Your task to perform on an android device: Go to Maps Image 0: 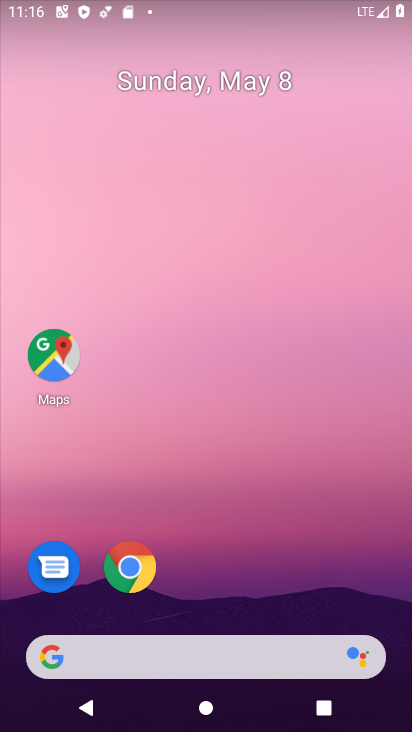
Step 0: click (56, 353)
Your task to perform on an android device: Go to Maps Image 1: 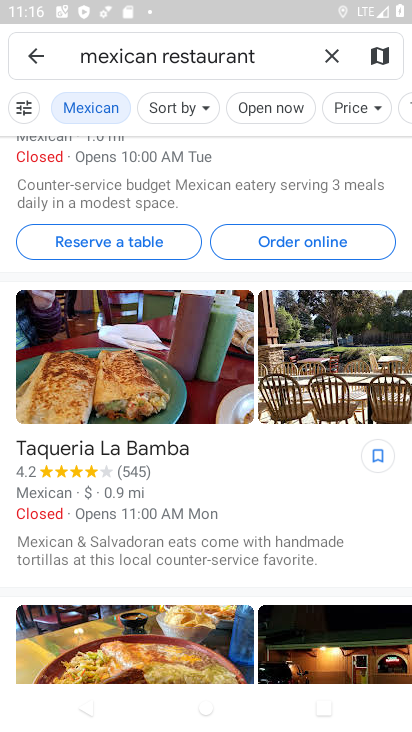
Step 1: click (325, 50)
Your task to perform on an android device: Go to Maps Image 2: 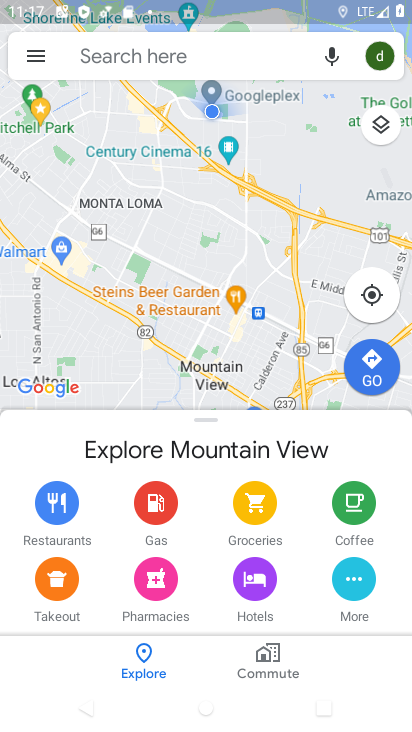
Step 2: task complete